Your task to perform on an android device: clear all cookies in the chrome app Image 0: 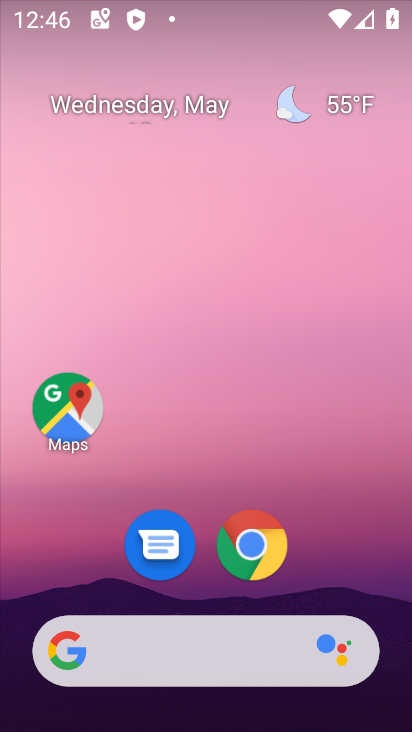
Step 0: click (253, 549)
Your task to perform on an android device: clear all cookies in the chrome app Image 1: 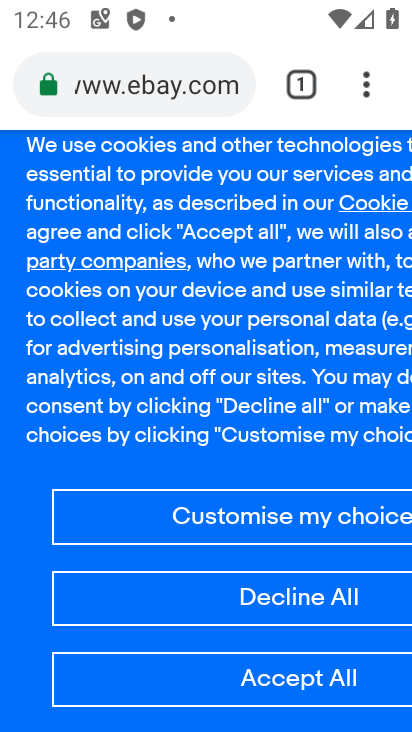
Step 1: click (366, 87)
Your task to perform on an android device: clear all cookies in the chrome app Image 2: 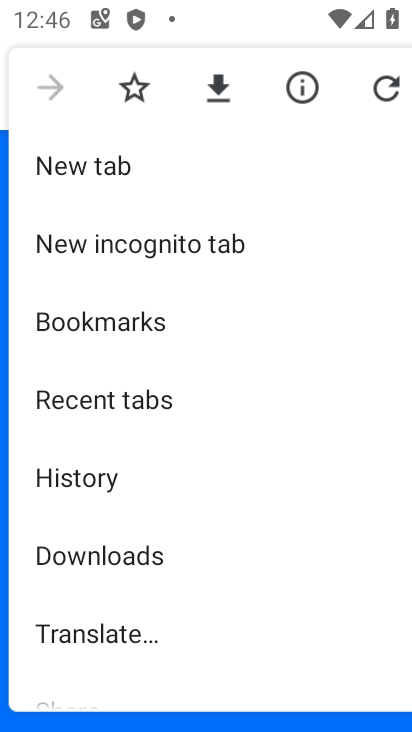
Step 2: drag from (285, 638) to (289, 207)
Your task to perform on an android device: clear all cookies in the chrome app Image 3: 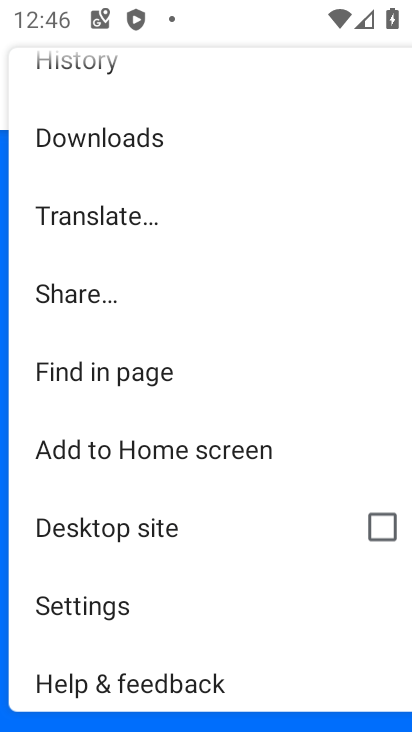
Step 3: click (160, 610)
Your task to perform on an android device: clear all cookies in the chrome app Image 4: 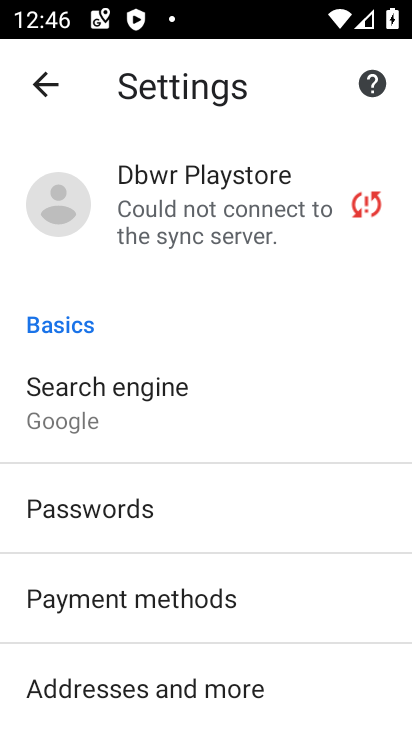
Step 4: drag from (207, 581) to (208, 259)
Your task to perform on an android device: clear all cookies in the chrome app Image 5: 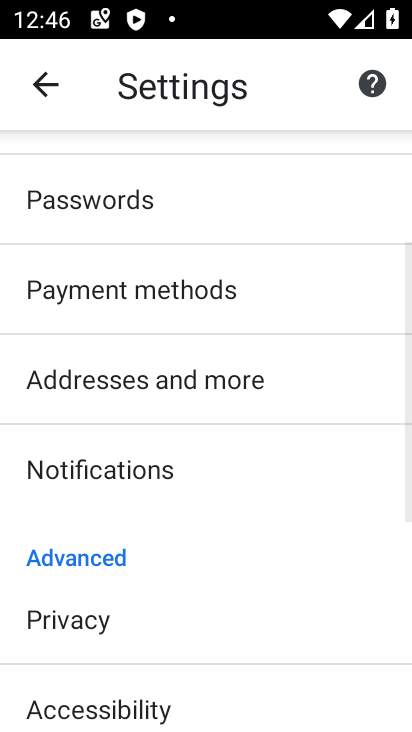
Step 5: drag from (202, 669) to (220, 313)
Your task to perform on an android device: clear all cookies in the chrome app Image 6: 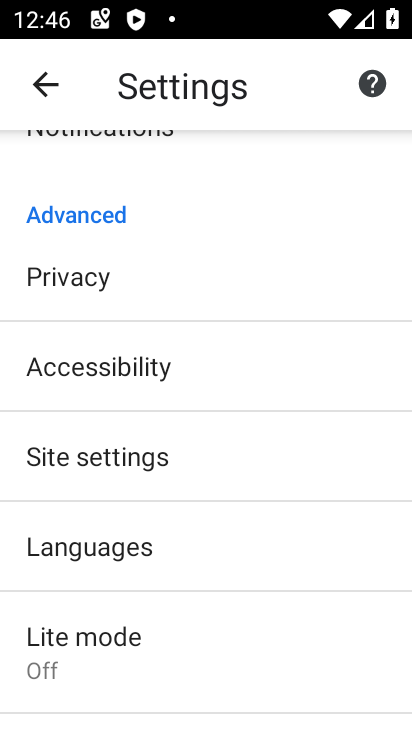
Step 6: click (152, 446)
Your task to perform on an android device: clear all cookies in the chrome app Image 7: 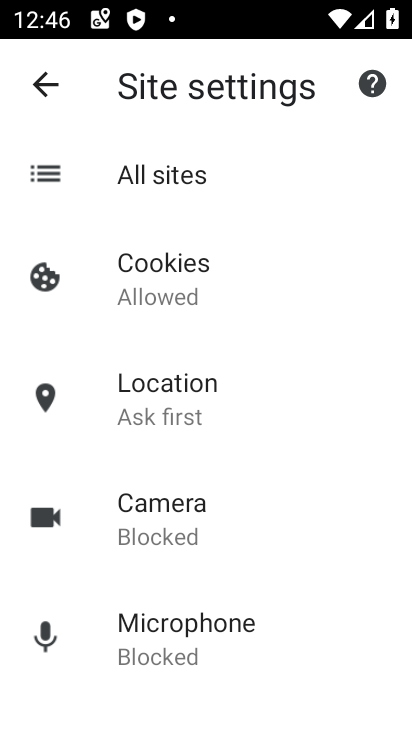
Step 7: click (52, 89)
Your task to perform on an android device: clear all cookies in the chrome app Image 8: 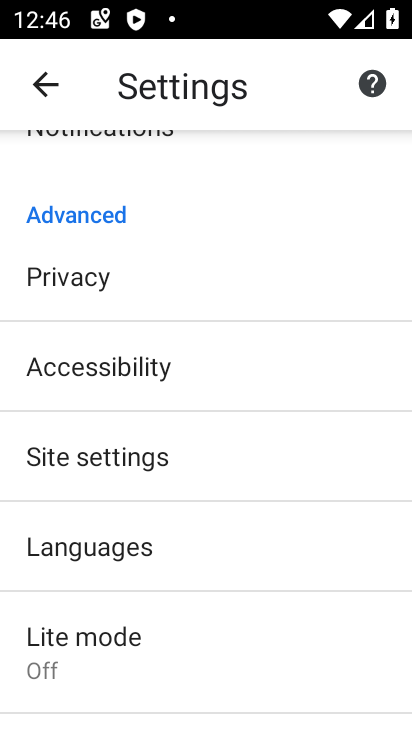
Step 8: click (160, 304)
Your task to perform on an android device: clear all cookies in the chrome app Image 9: 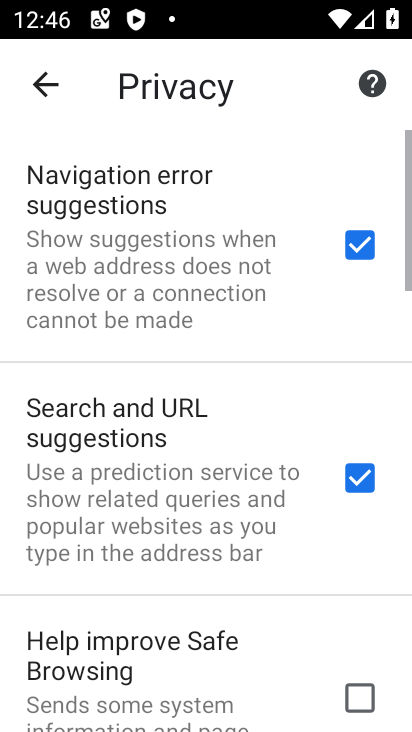
Step 9: drag from (213, 607) to (263, 54)
Your task to perform on an android device: clear all cookies in the chrome app Image 10: 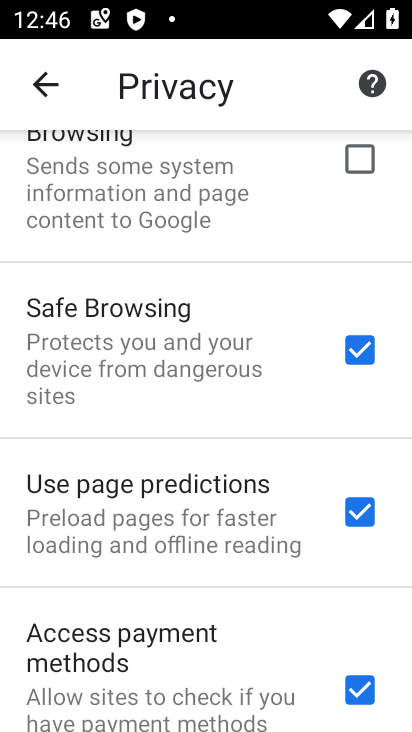
Step 10: drag from (237, 630) to (230, 122)
Your task to perform on an android device: clear all cookies in the chrome app Image 11: 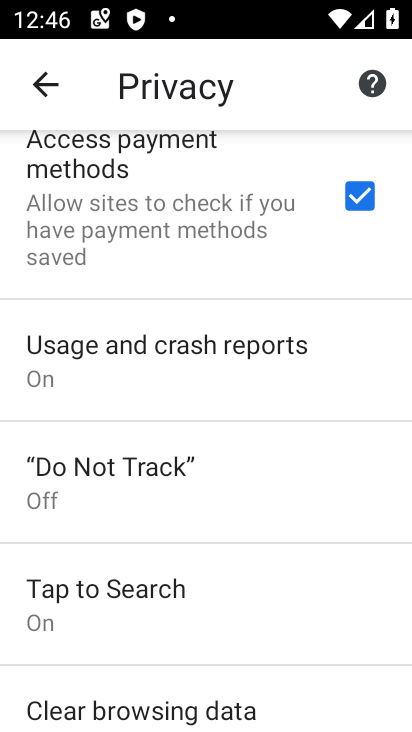
Step 11: drag from (232, 591) to (233, 117)
Your task to perform on an android device: clear all cookies in the chrome app Image 12: 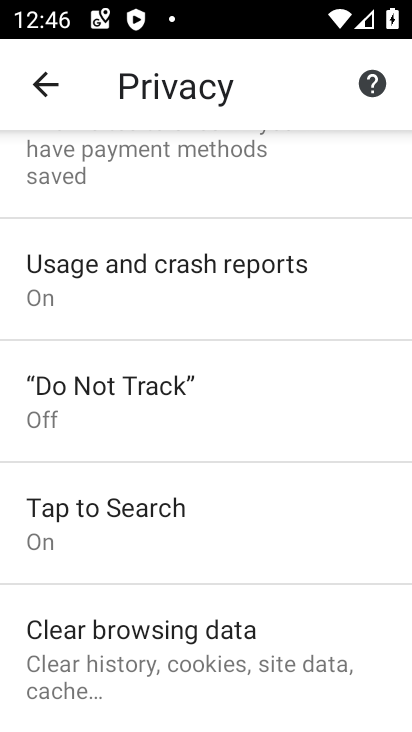
Step 12: click (232, 646)
Your task to perform on an android device: clear all cookies in the chrome app Image 13: 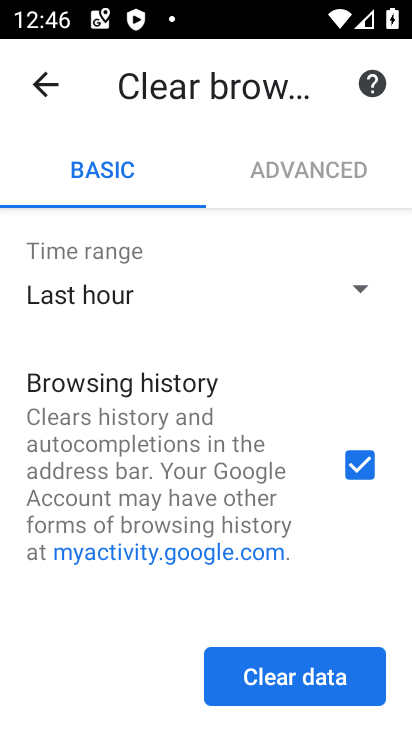
Step 13: drag from (265, 480) to (257, 151)
Your task to perform on an android device: clear all cookies in the chrome app Image 14: 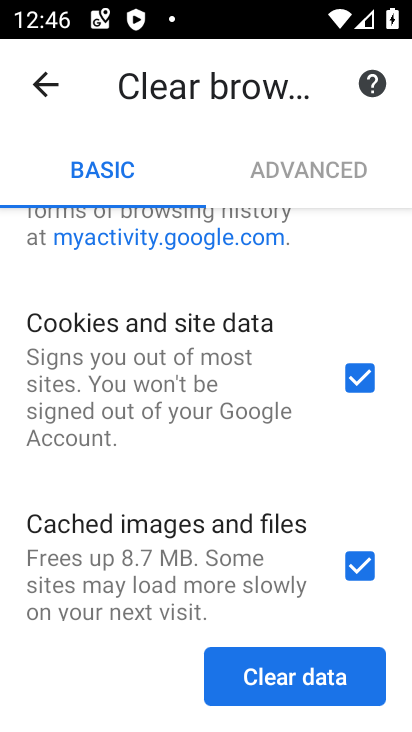
Step 14: click (354, 561)
Your task to perform on an android device: clear all cookies in the chrome app Image 15: 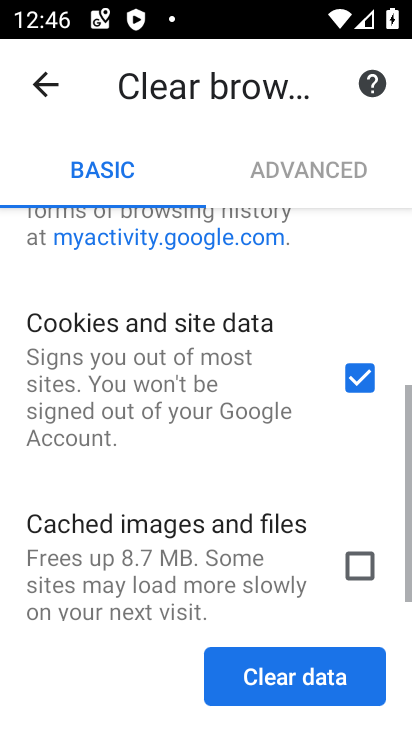
Step 15: drag from (353, 313) to (349, 620)
Your task to perform on an android device: clear all cookies in the chrome app Image 16: 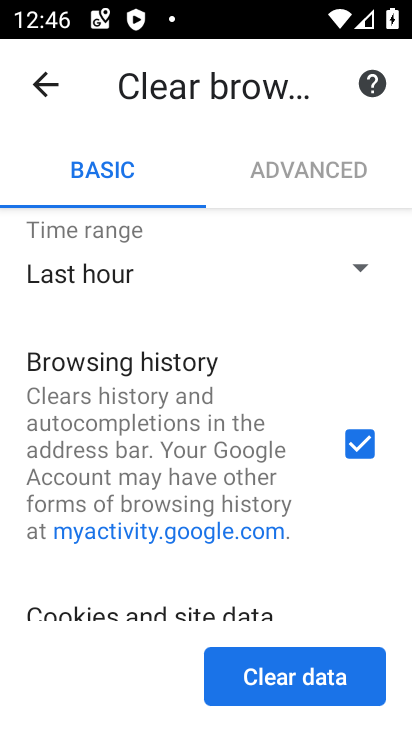
Step 16: click (348, 438)
Your task to perform on an android device: clear all cookies in the chrome app Image 17: 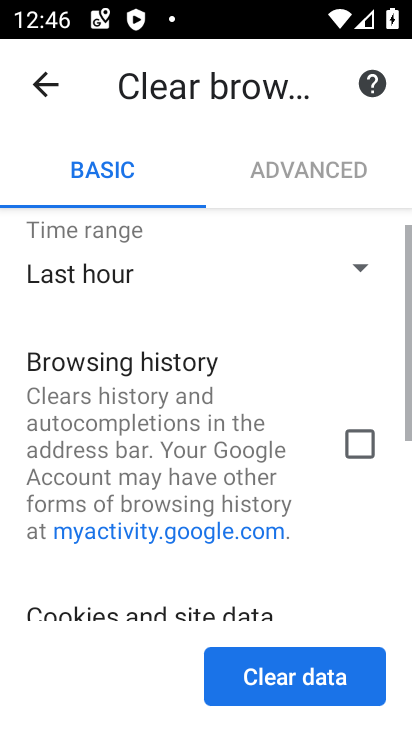
Step 17: click (343, 262)
Your task to perform on an android device: clear all cookies in the chrome app Image 18: 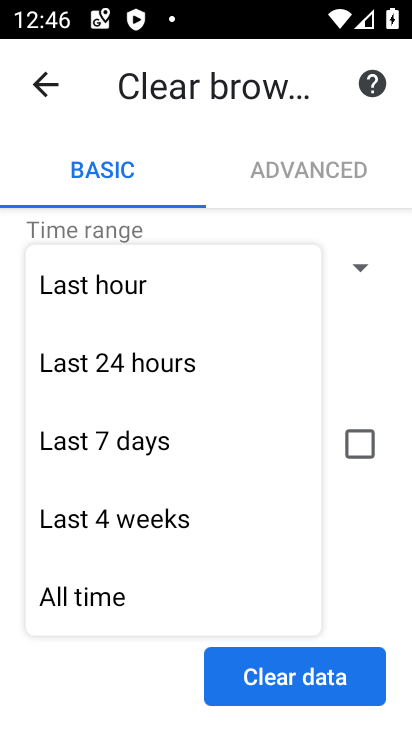
Step 18: click (125, 595)
Your task to perform on an android device: clear all cookies in the chrome app Image 19: 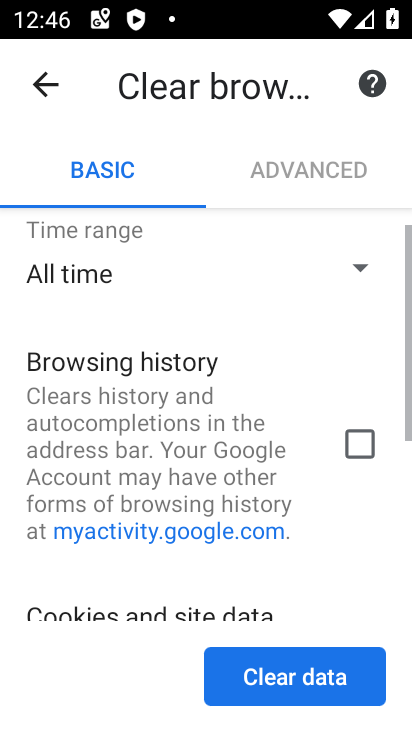
Step 19: click (273, 661)
Your task to perform on an android device: clear all cookies in the chrome app Image 20: 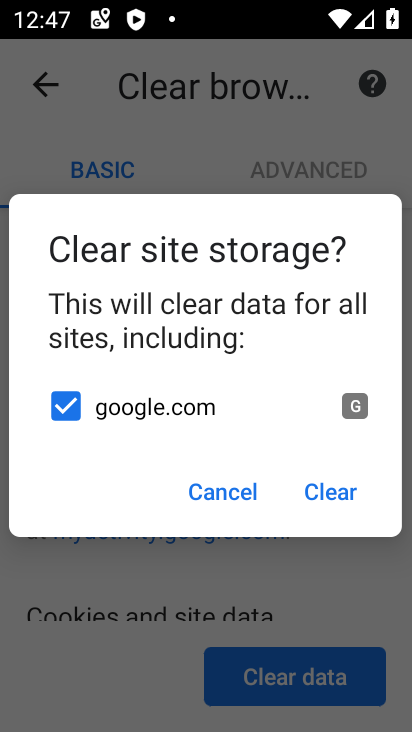
Step 20: click (339, 484)
Your task to perform on an android device: clear all cookies in the chrome app Image 21: 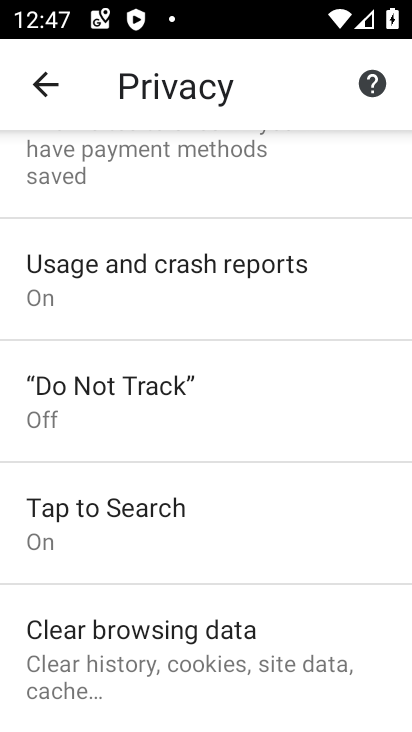
Step 21: task complete